Your task to perform on an android device: Open Chrome and go to settings Image 0: 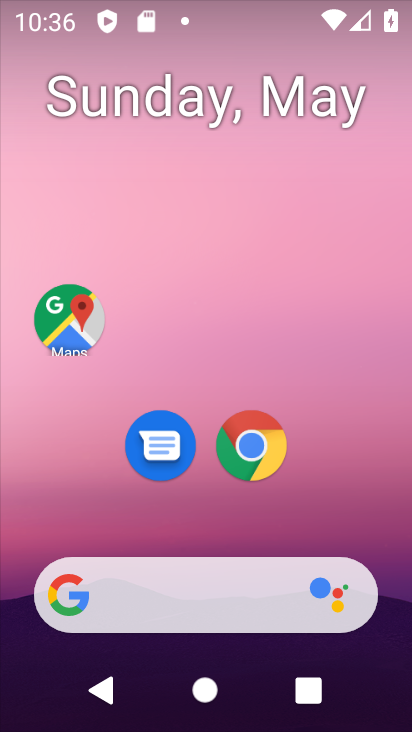
Step 0: click (253, 442)
Your task to perform on an android device: Open Chrome and go to settings Image 1: 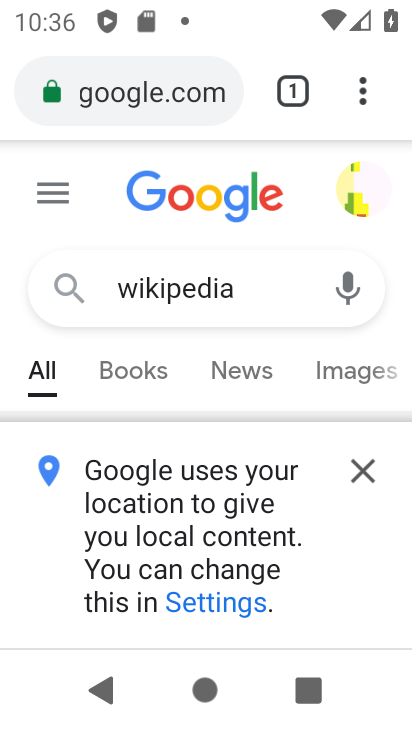
Step 1: click (368, 87)
Your task to perform on an android device: Open Chrome and go to settings Image 2: 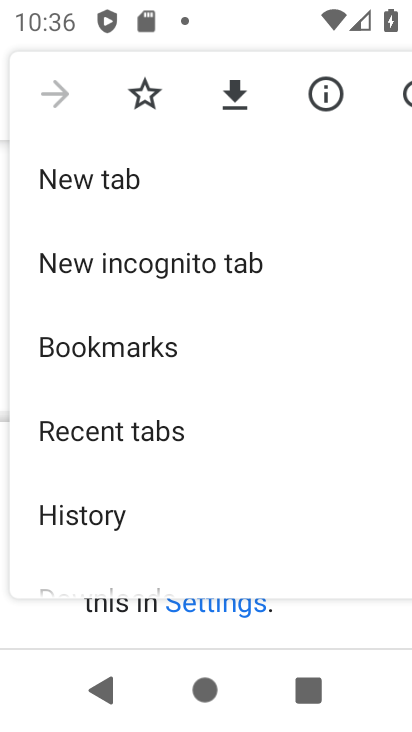
Step 2: drag from (197, 542) to (268, 164)
Your task to perform on an android device: Open Chrome and go to settings Image 3: 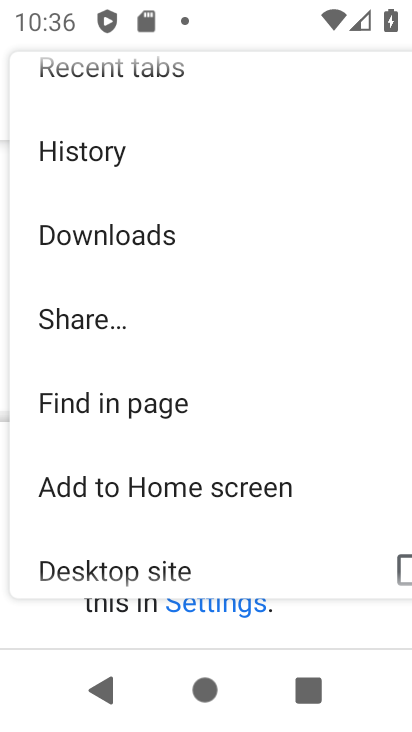
Step 3: drag from (160, 555) to (245, 185)
Your task to perform on an android device: Open Chrome and go to settings Image 4: 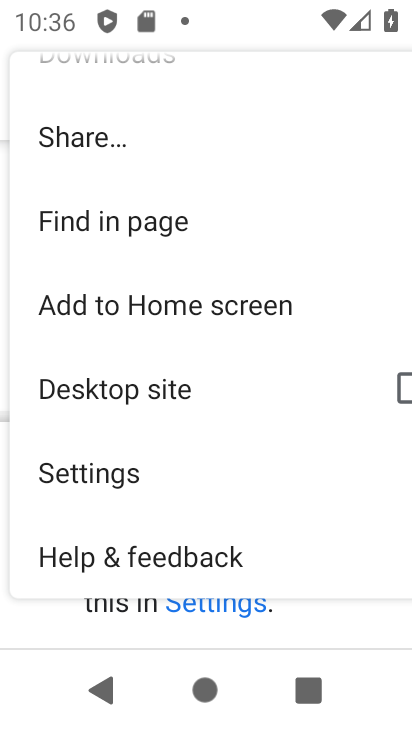
Step 4: click (104, 473)
Your task to perform on an android device: Open Chrome and go to settings Image 5: 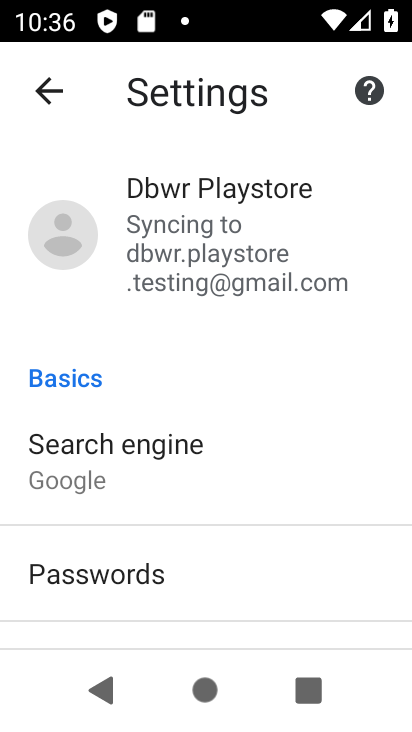
Step 5: task complete